Your task to perform on an android device: change the upload size in google photos Image 0: 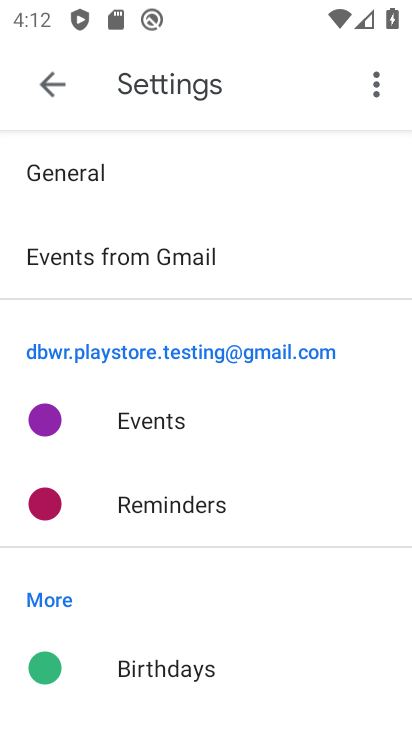
Step 0: press home button
Your task to perform on an android device: change the upload size in google photos Image 1: 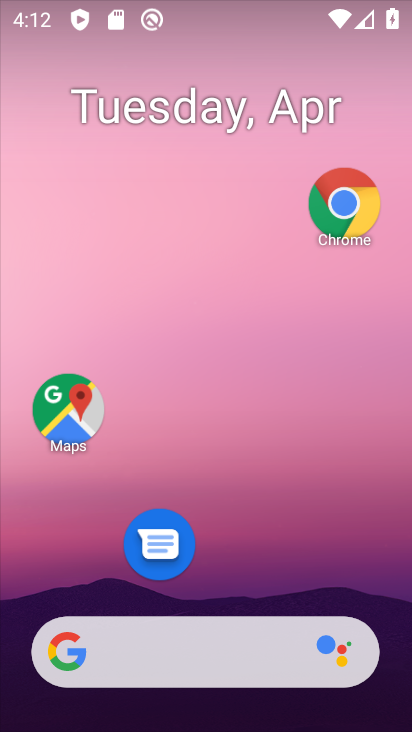
Step 1: drag from (252, 571) to (334, 15)
Your task to perform on an android device: change the upload size in google photos Image 2: 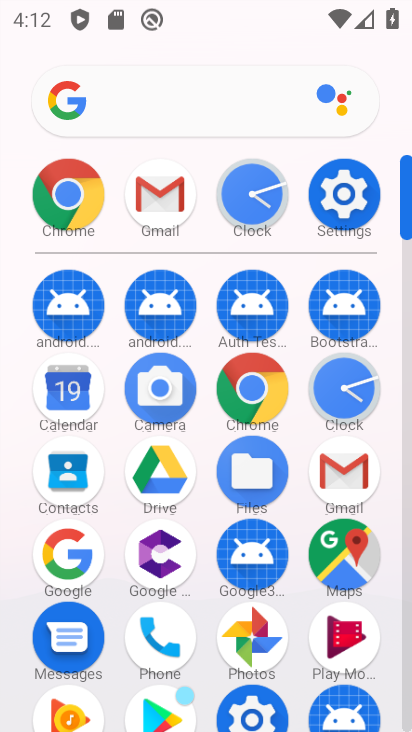
Step 2: click (262, 638)
Your task to perform on an android device: change the upload size in google photos Image 3: 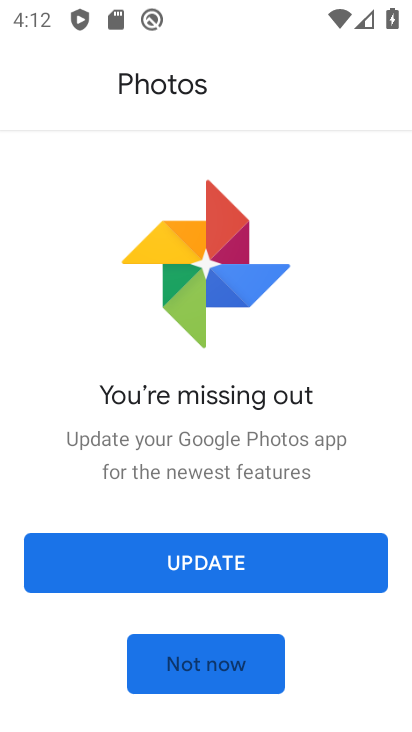
Step 3: click (228, 673)
Your task to perform on an android device: change the upload size in google photos Image 4: 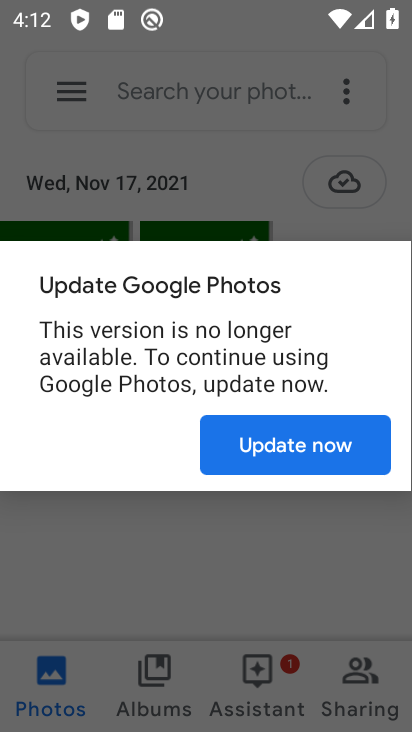
Step 4: click (301, 446)
Your task to perform on an android device: change the upload size in google photos Image 5: 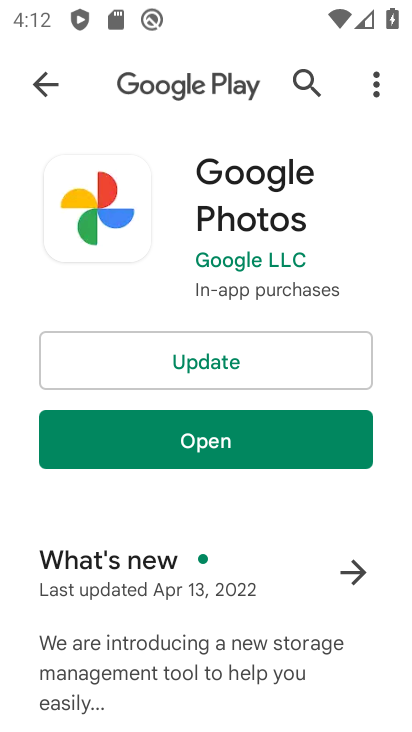
Step 5: click (237, 442)
Your task to perform on an android device: change the upload size in google photos Image 6: 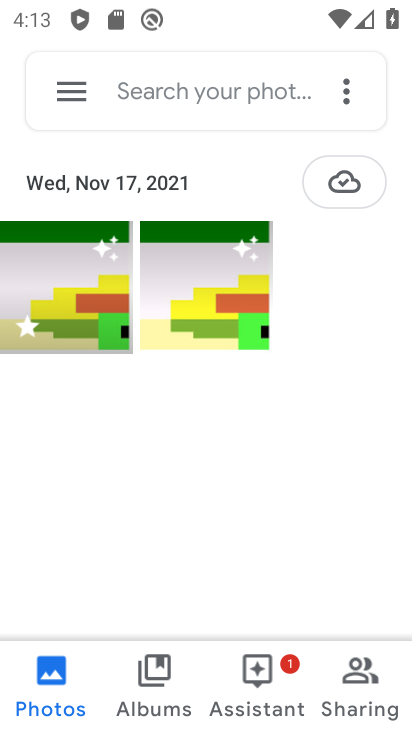
Step 6: click (71, 90)
Your task to perform on an android device: change the upload size in google photos Image 7: 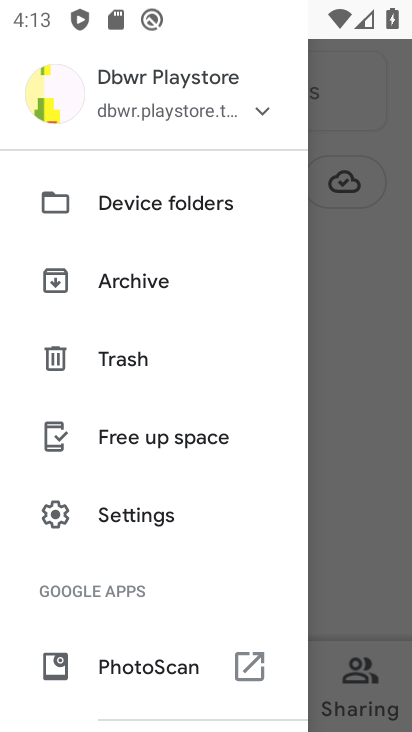
Step 7: click (147, 509)
Your task to perform on an android device: change the upload size in google photos Image 8: 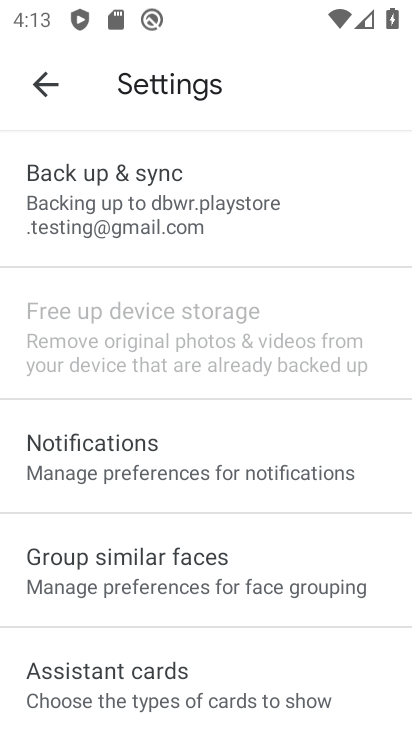
Step 8: click (172, 210)
Your task to perform on an android device: change the upload size in google photos Image 9: 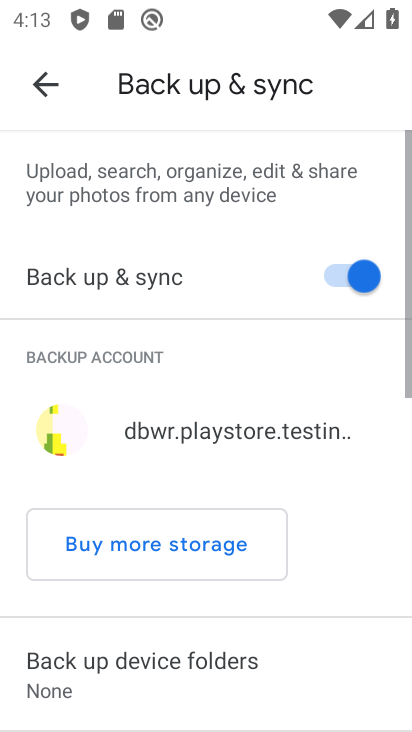
Step 9: drag from (190, 524) to (274, 102)
Your task to perform on an android device: change the upload size in google photos Image 10: 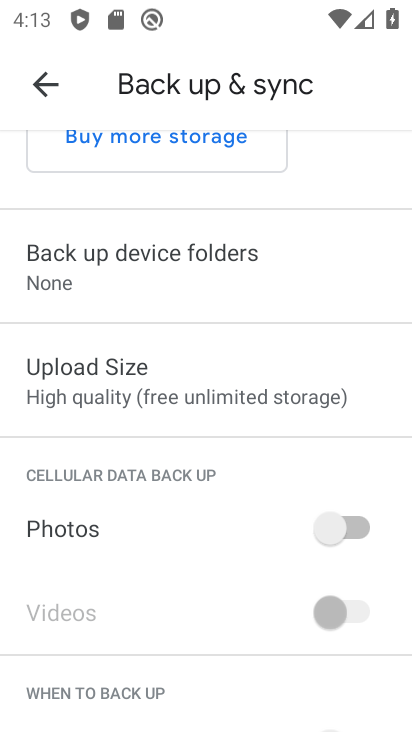
Step 10: click (142, 383)
Your task to perform on an android device: change the upload size in google photos Image 11: 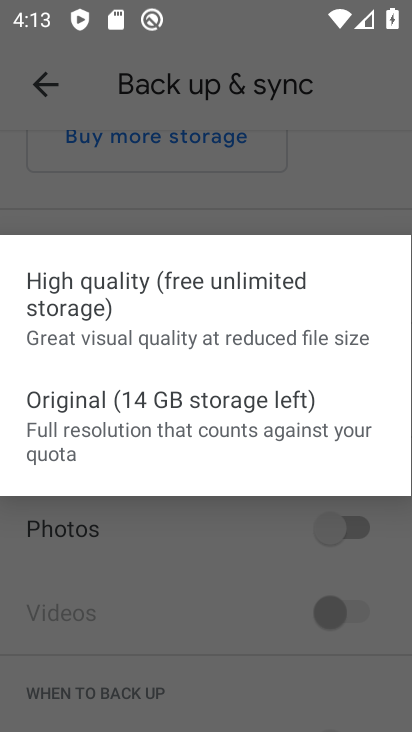
Step 11: click (150, 436)
Your task to perform on an android device: change the upload size in google photos Image 12: 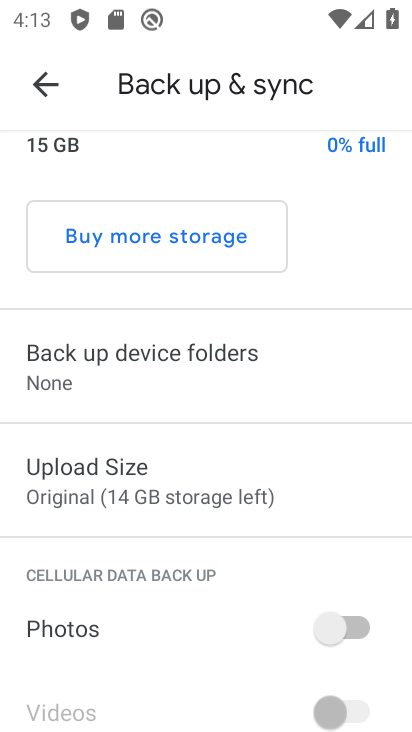
Step 12: task complete